Your task to perform on an android device: Go to privacy settings Image 0: 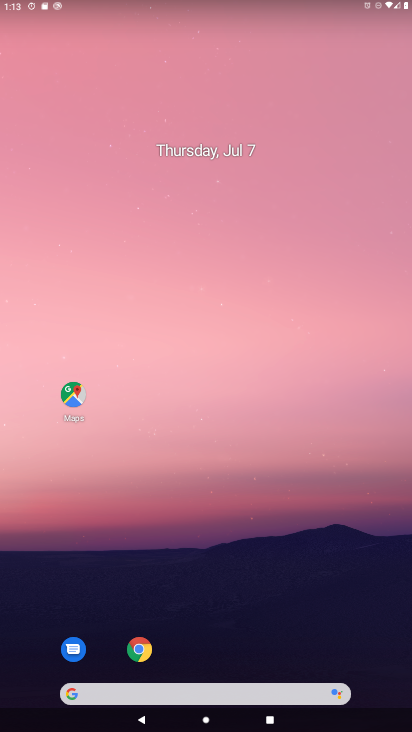
Step 0: drag from (183, 675) to (208, 230)
Your task to perform on an android device: Go to privacy settings Image 1: 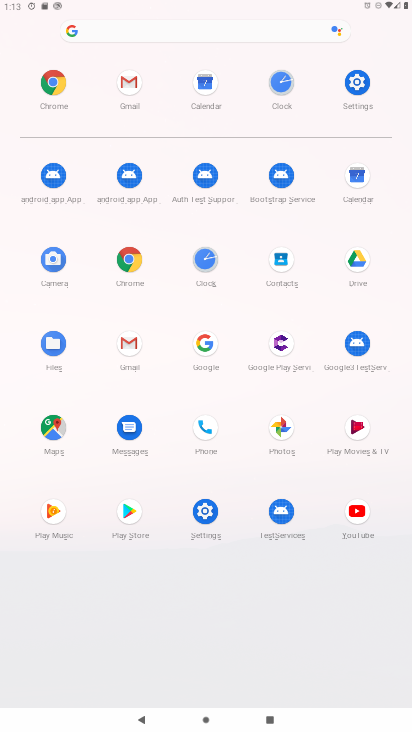
Step 1: click (365, 88)
Your task to perform on an android device: Go to privacy settings Image 2: 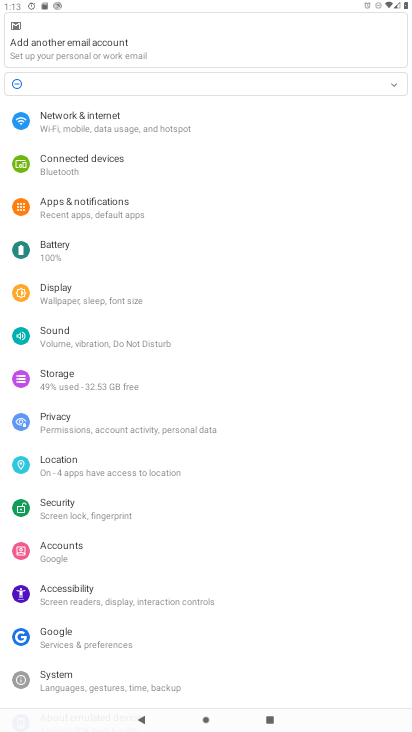
Step 2: click (36, 415)
Your task to perform on an android device: Go to privacy settings Image 3: 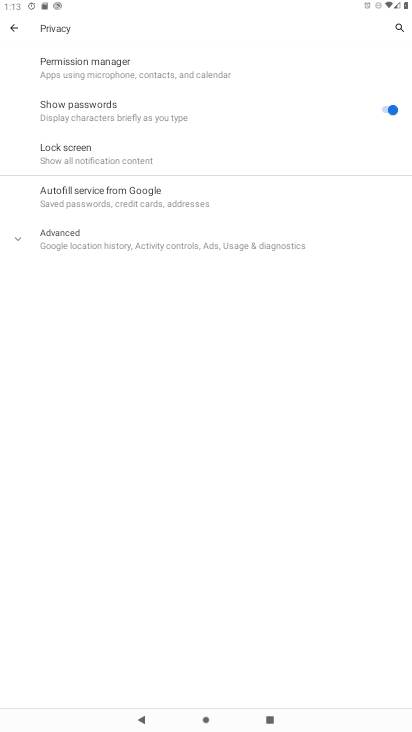
Step 3: task complete